Your task to perform on an android device: see tabs open on other devices in the chrome app Image 0: 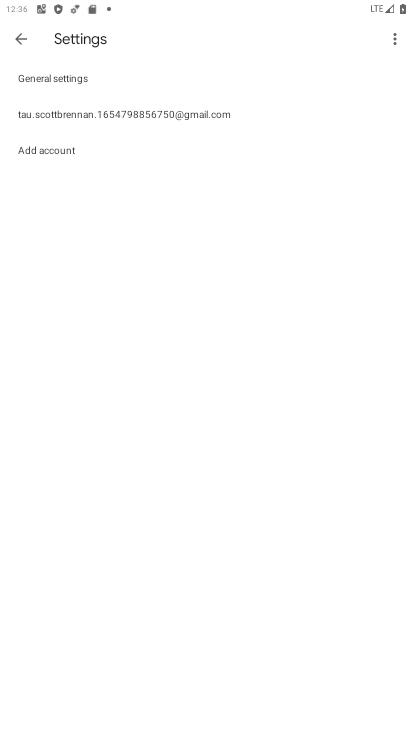
Step 0: press home button
Your task to perform on an android device: see tabs open on other devices in the chrome app Image 1: 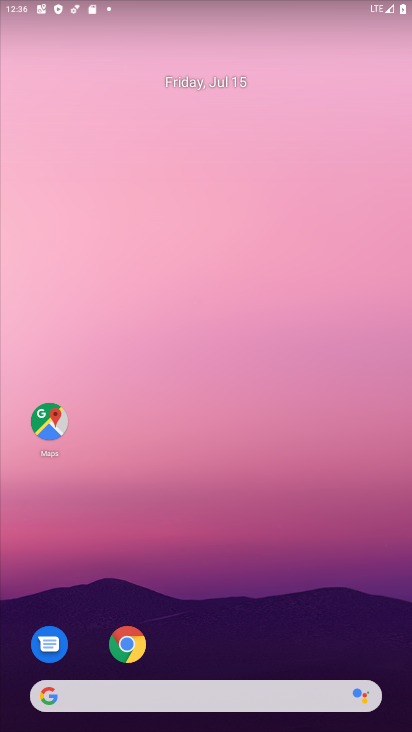
Step 1: click (136, 645)
Your task to perform on an android device: see tabs open on other devices in the chrome app Image 2: 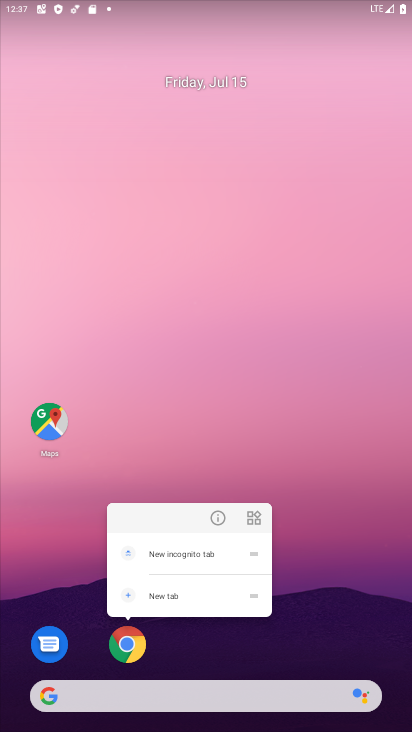
Step 2: click (132, 642)
Your task to perform on an android device: see tabs open on other devices in the chrome app Image 3: 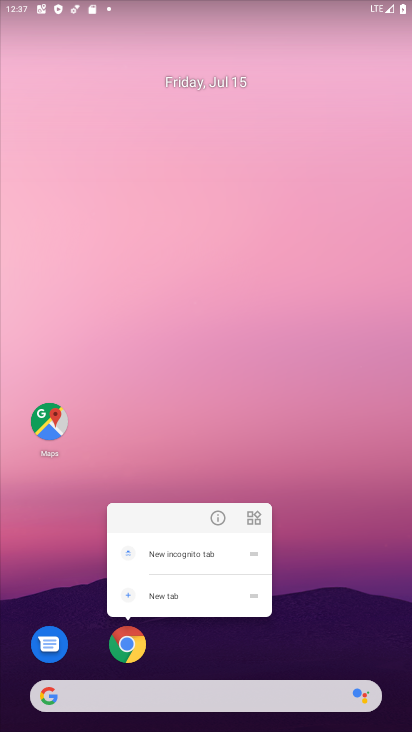
Step 3: click (133, 641)
Your task to perform on an android device: see tabs open on other devices in the chrome app Image 4: 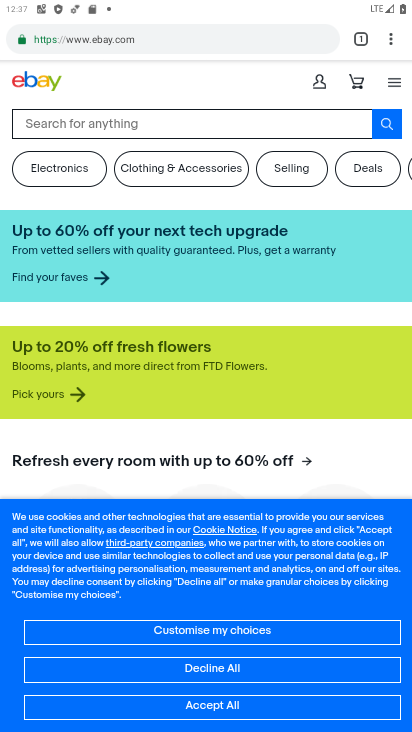
Step 4: click (368, 38)
Your task to perform on an android device: see tabs open on other devices in the chrome app Image 5: 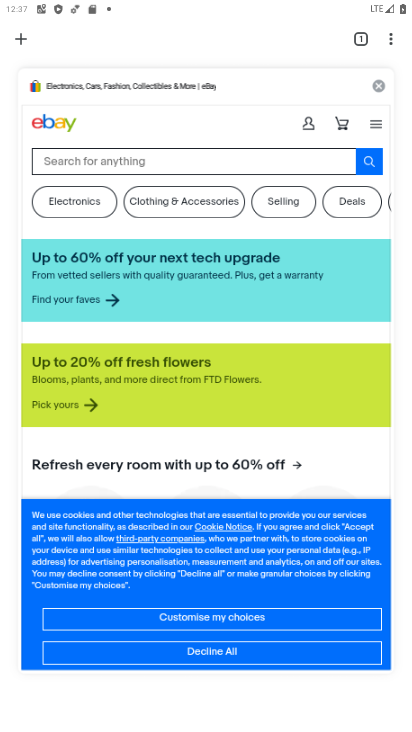
Step 5: task complete